Your task to perform on an android device: Toggle the flashlight Image 0: 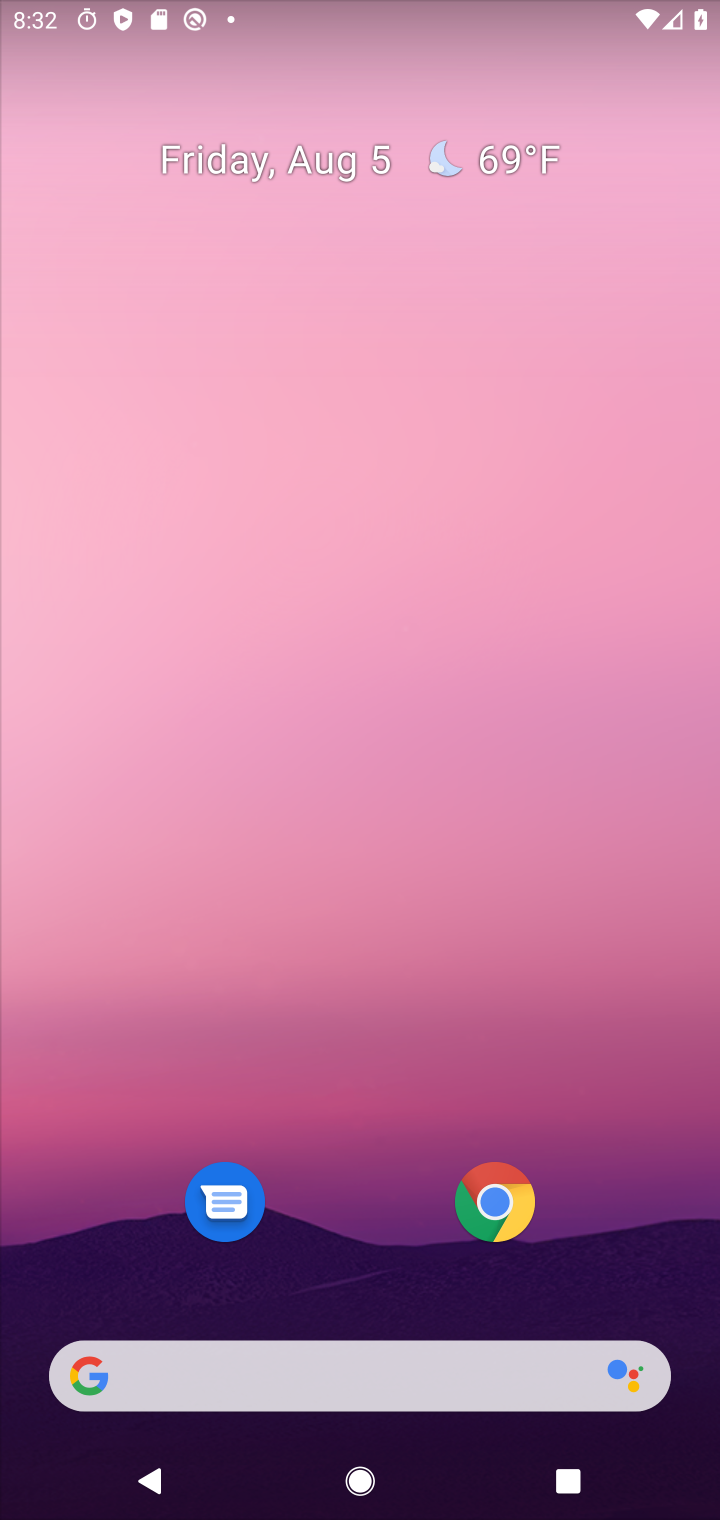
Step 0: drag from (372, 1081) to (423, 32)
Your task to perform on an android device: Toggle the flashlight Image 1: 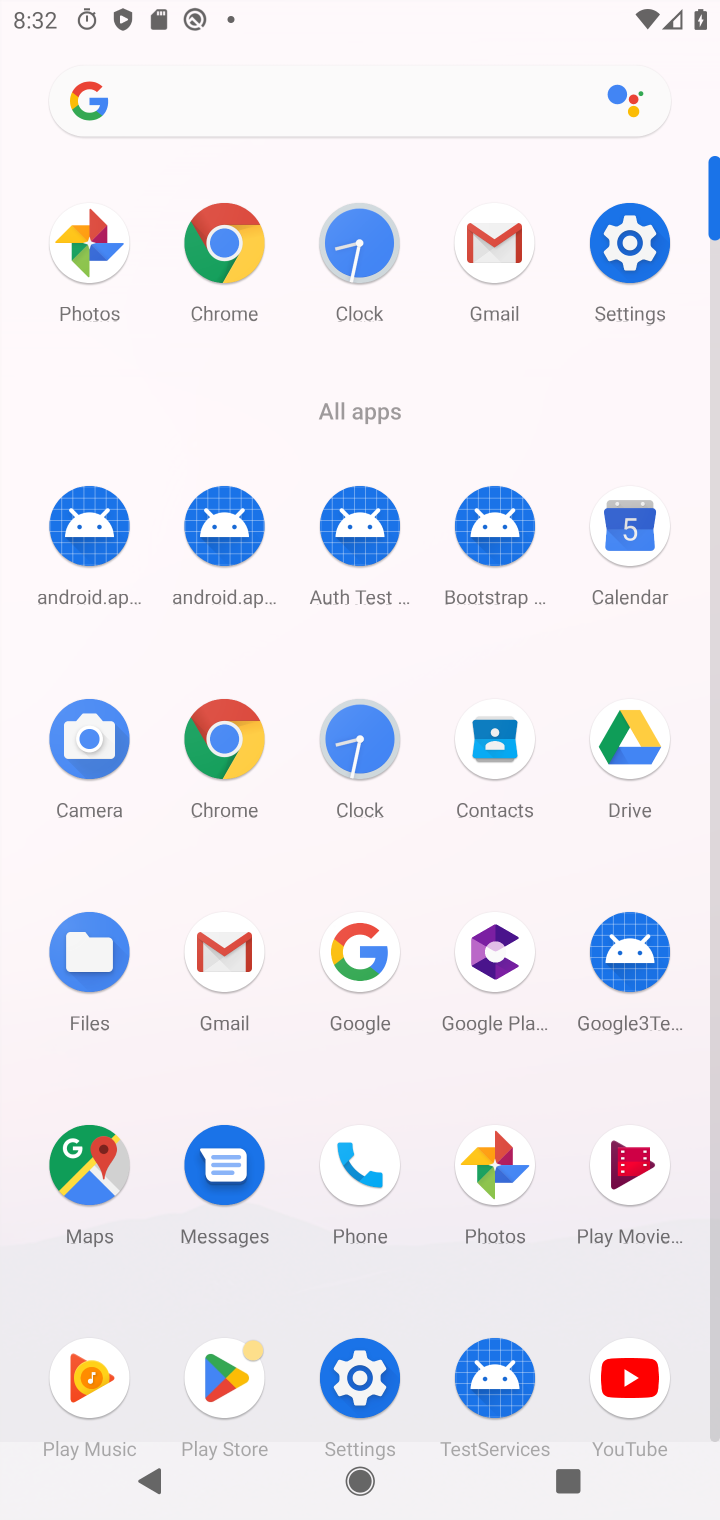
Step 1: click (629, 226)
Your task to perform on an android device: Toggle the flashlight Image 2: 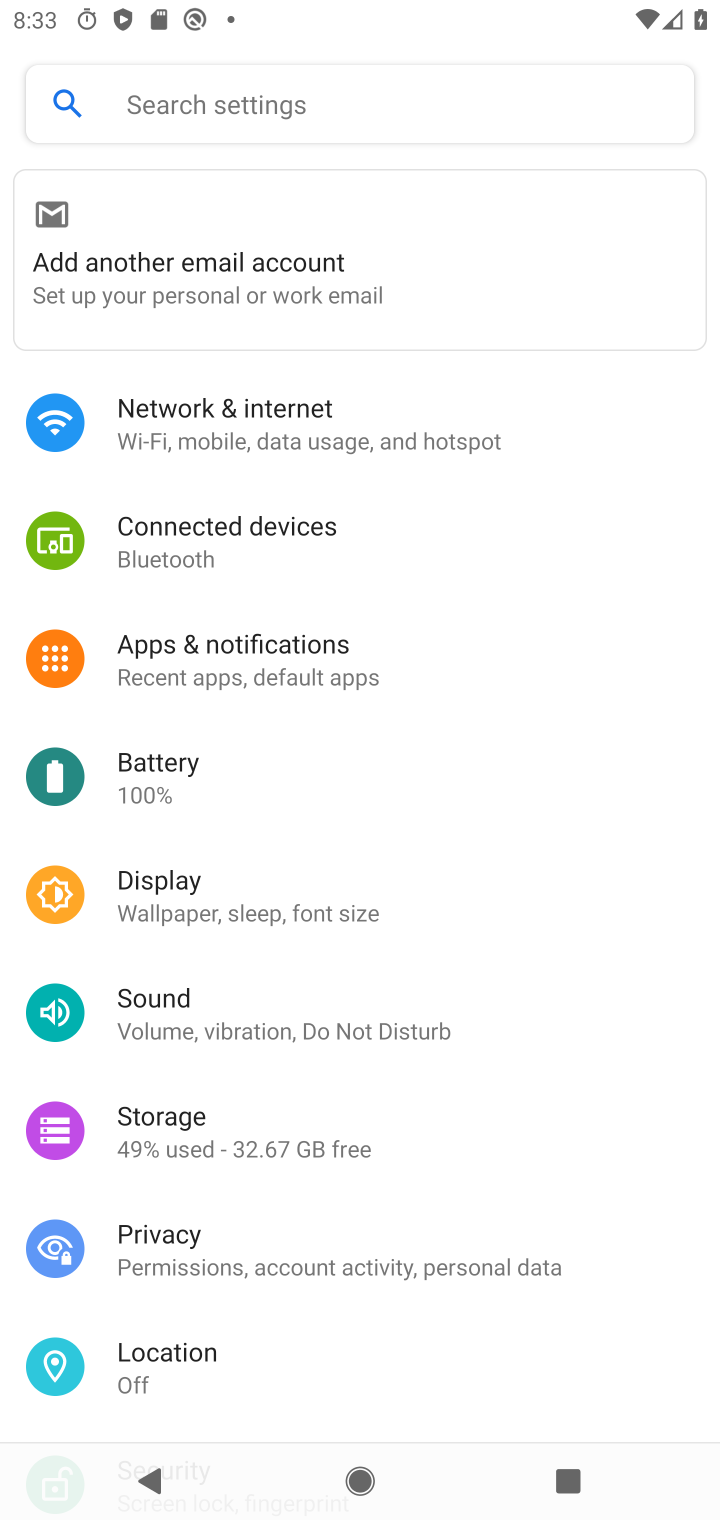
Step 2: task complete